Your task to perform on an android device: add a label to a message in the gmail app Image 0: 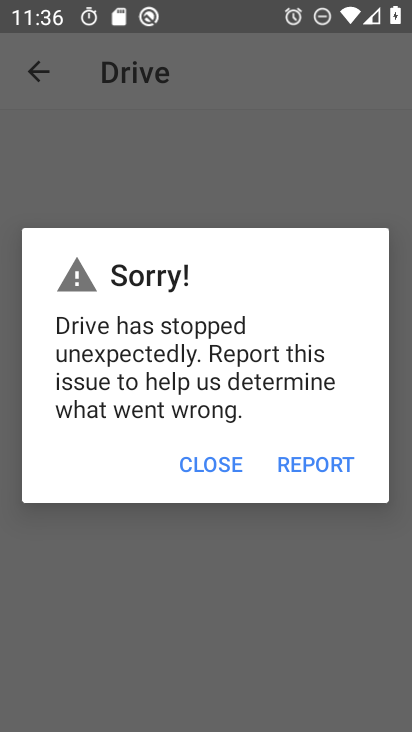
Step 0: press home button
Your task to perform on an android device: add a label to a message in the gmail app Image 1: 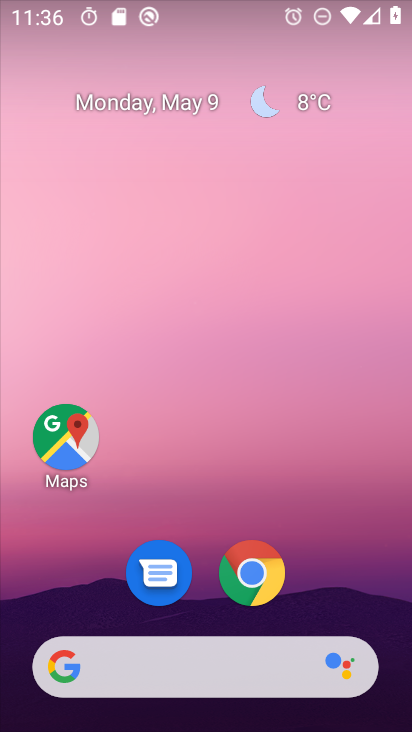
Step 1: drag from (357, 573) to (278, 175)
Your task to perform on an android device: add a label to a message in the gmail app Image 2: 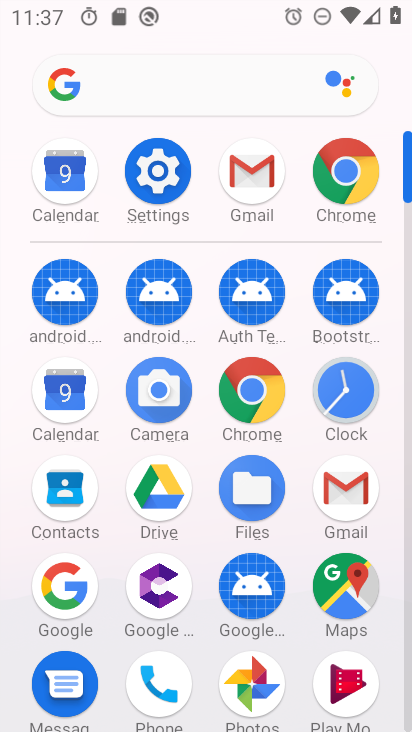
Step 2: click (264, 183)
Your task to perform on an android device: add a label to a message in the gmail app Image 3: 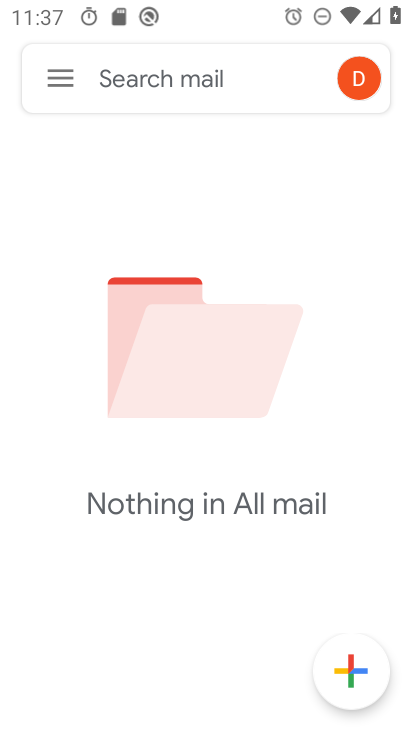
Step 3: task complete